Your task to perform on an android device: Search for hotels in Buenos aires Image 0: 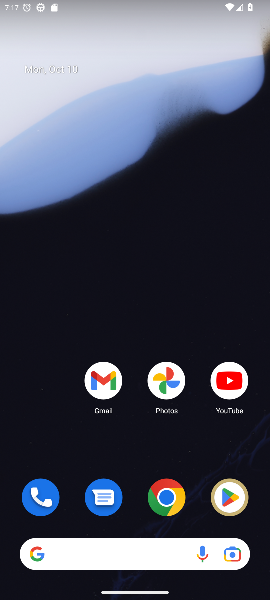
Step 0: drag from (147, 519) to (168, 127)
Your task to perform on an android device: Search for hotels in Buenos aires Image 1: 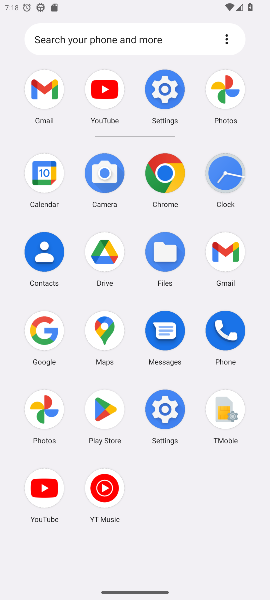
Step 1: click (41, 325)
Your task to perform on an android device: Search for hotels in Buenos aires Image 2: 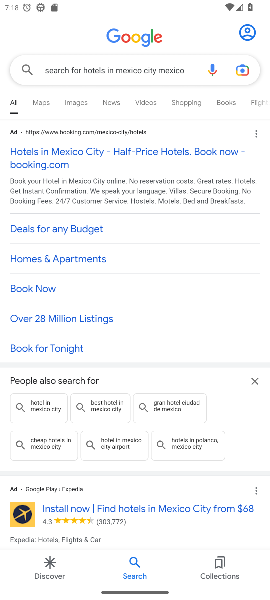
Step 2: click (173, 63)
Your task to perform on an android device: Search for hotels in Buenos aires Image 3: 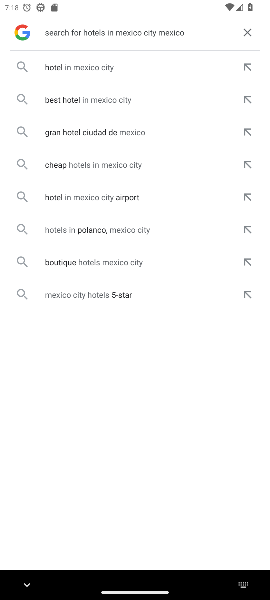
Step 3: click (250, 28)
Your task to perform on an android device: Search for hotels in Buenos aires Image 4: 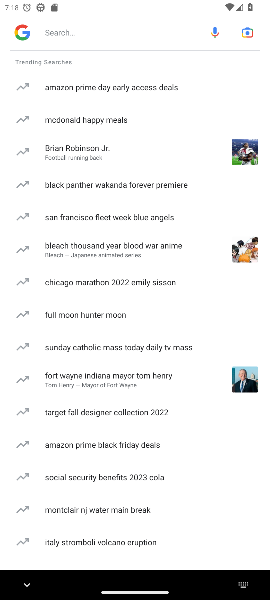
Step 4: click (113, 34)
Your task to perform on an android device: Search for hotels in Buenos aires Image 5: 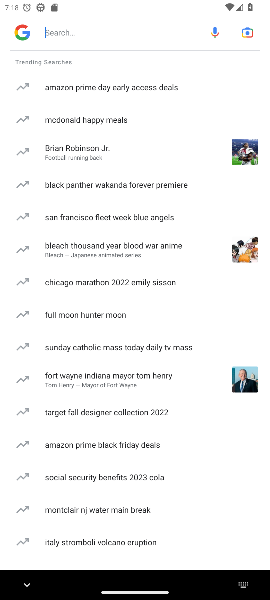
Step 5: type "Search for hotels in Buenos aires "
Your task to perform on an android device: Search for hotels in Buenos aires Image 6: 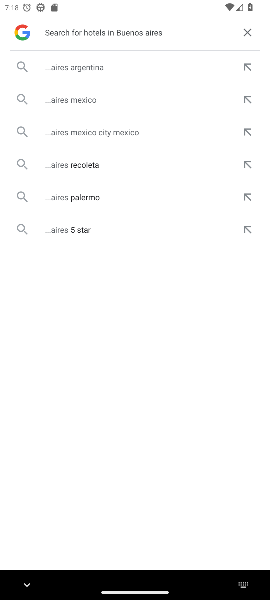
Step 6: click (73, 64)
Your task to perform on an android device: Search for hotels in Buenos aires Image 7: 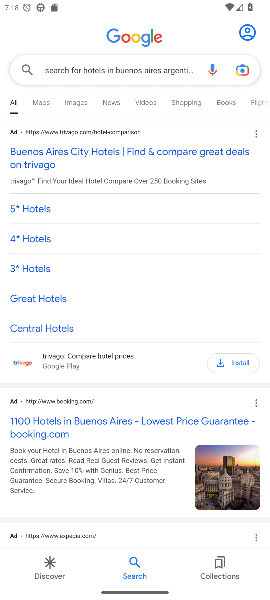
Step 7: click (77, 154)
Your task to perform on an android device: Search for hotels in Buenos aires Image 8: 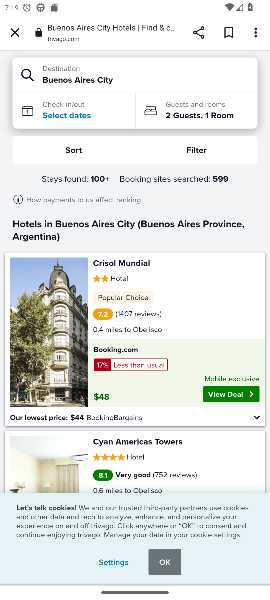
Step 8: task complete